Your task to perform on an android device: turn on javascript in the chrome app Image 0: 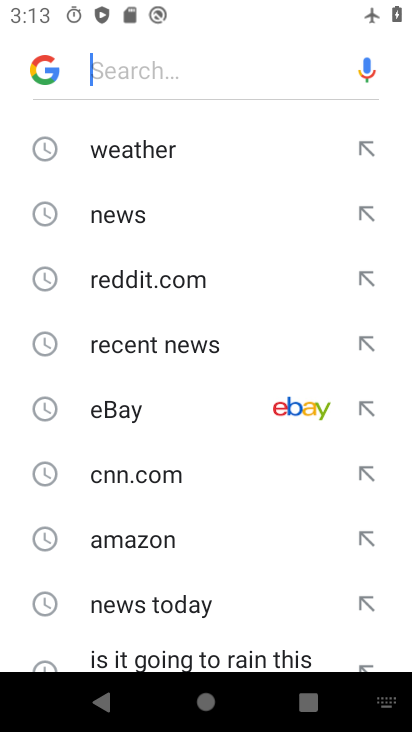
Step 0: press home button
Your task to perform on an android device: turn on javascript in the chrome app Image 1: 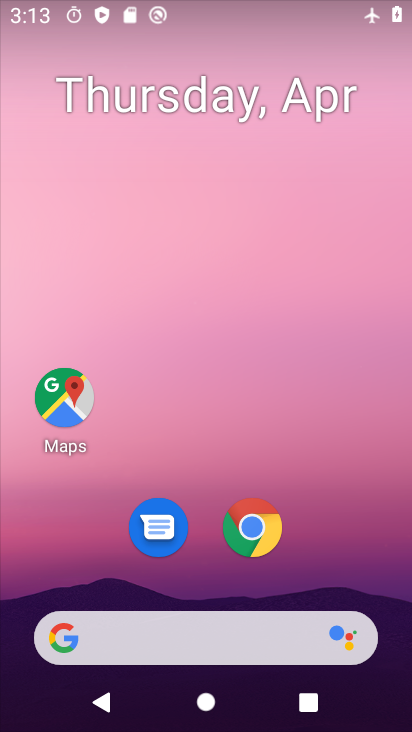
Step 1: click (252, 525)
Your task to perform on an android device: turn on javascript in the chrome app Image 2: 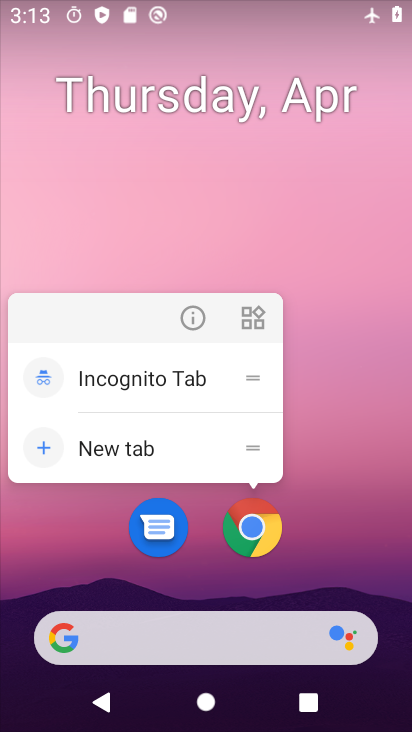
Step 2: click (264, 538)
Your task to perform on an android device: turn on javascript in the chrome app Image 3: 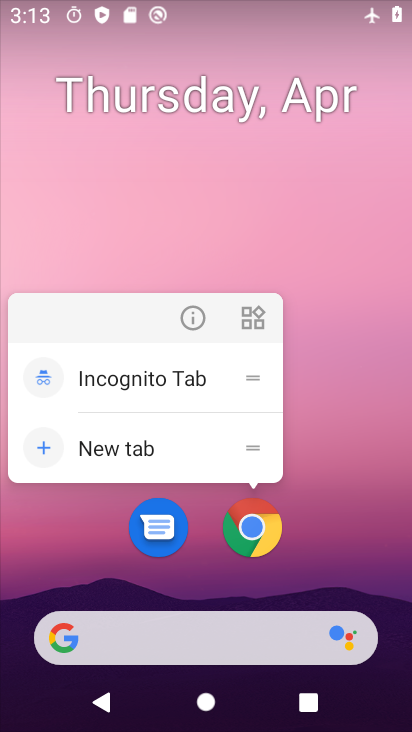
Step 3: drag from (352, 550) to (343, 75)
Your task to perform on an android device: turn on javascript in the chrome app Image 4: 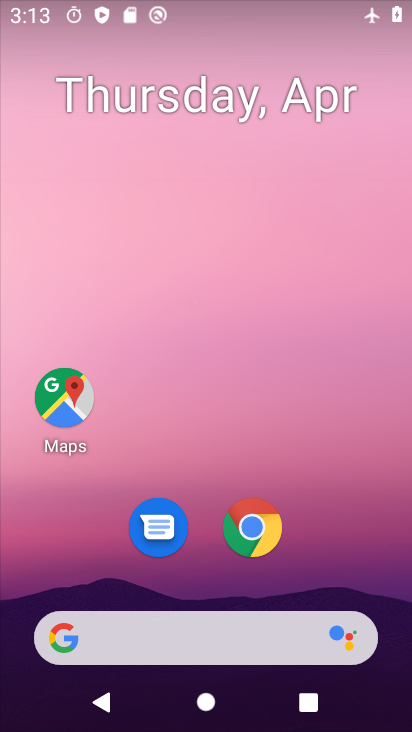
Step 4: drag from (325, 516) to (319, 115)
Your task to perform on an android device: turn on javascript in the chrome app Image 5: 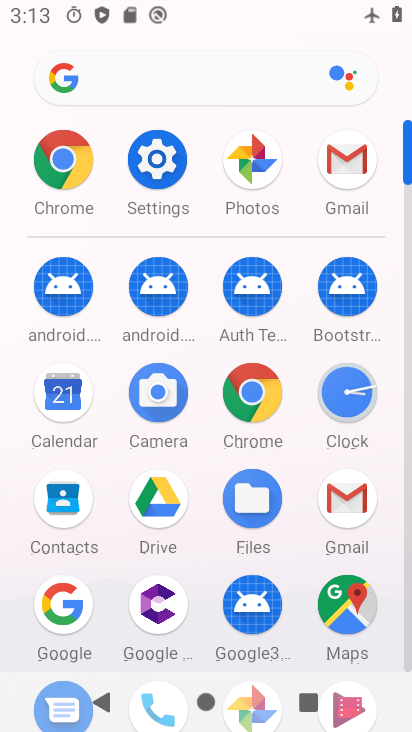
Step 5: click (250, 403)
Your task to perform on an android device: turn on javascript in the chrome app Image 6: 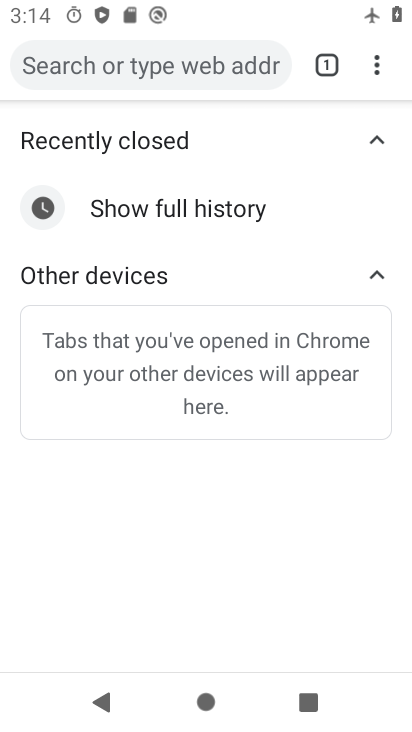
Step 6: drag from (381, 64) to (181, 581)
Your task to perform on an android device: turn on javascript in the chrome app Image 7: 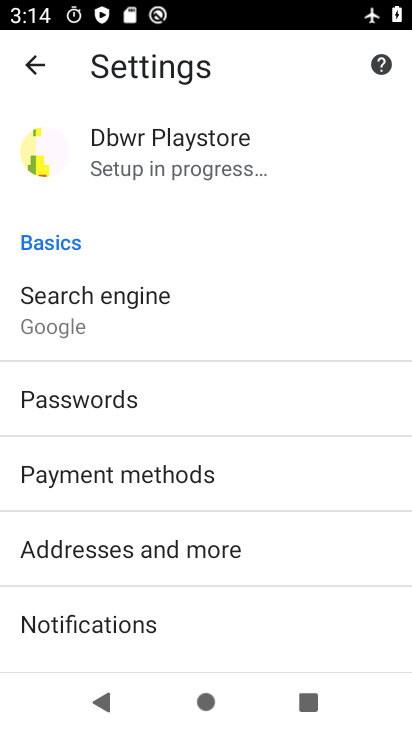
Step 7: drag from (210, 564) to (264, 118)
Your task to perform on an android device: turn on javascript in the chrome app Image 8: 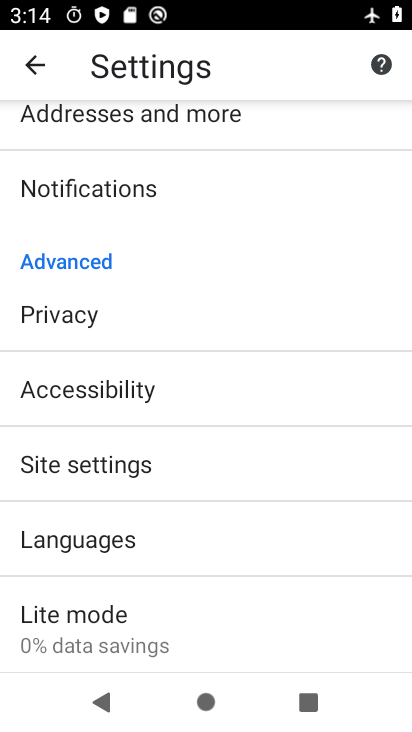
Step 8: click (123, 474)
Your task to perform on an android device: turn on javascript in the chrome app Image 9: 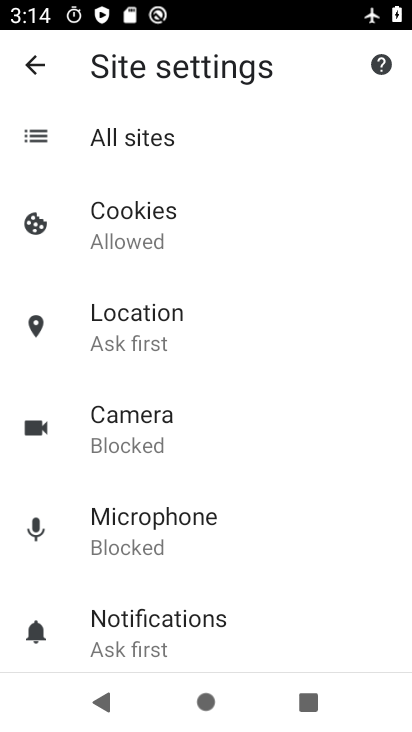
Step 9: drag from (217, 570) to (253, 289)
Your task to perform on an android device: turn on javascript in the chrome app Image 10: 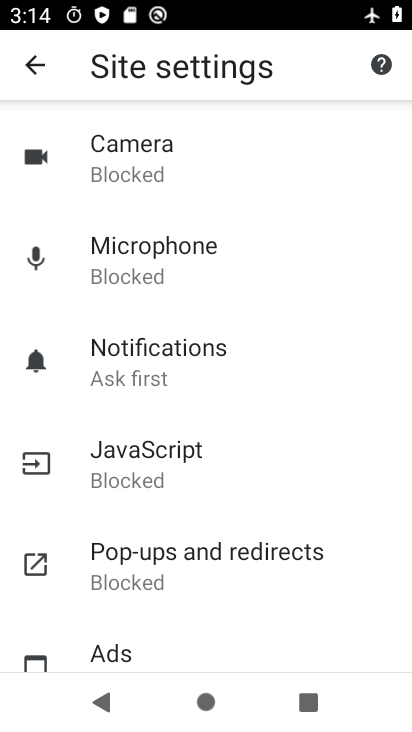
Step 10: click (159, 457)
Your task to perform on an android device: turn on javascript in the chrome app Image 11: 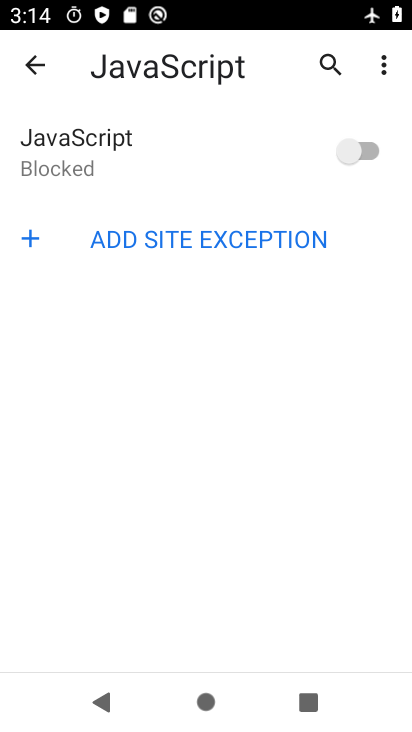
Step 11: click (322, 158)
Your task to perform on an android device: turn on javascript in the chrome app Image 12: 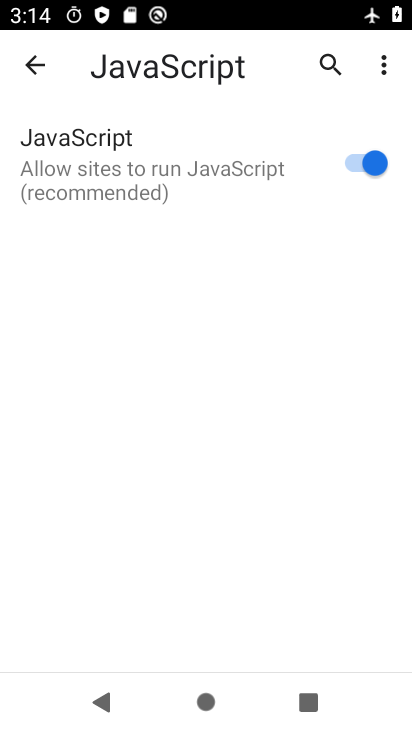
Step 12: task complete